Your task to perform on an android device: turn on javascript in the chrome app Image 0: 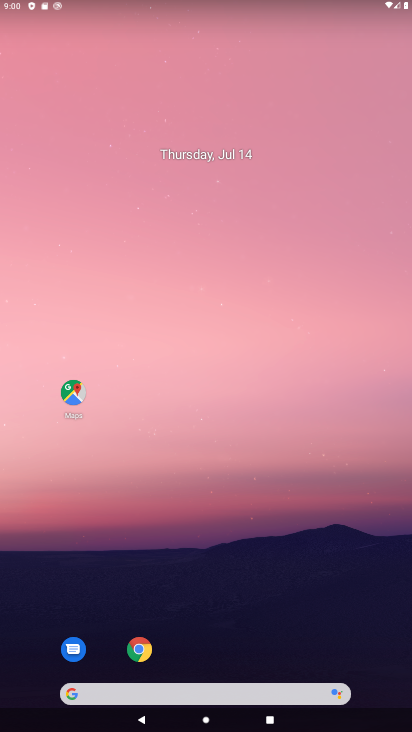
Step 0: drag from (177, 676) to (136, 657)
Your task to perform on an android device: turn on javascript in the chrome app Image 1: 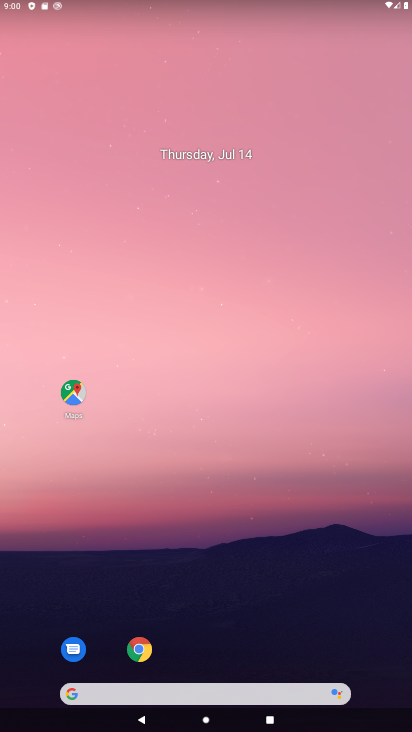
Step 1: click (136, 657)
Your task to perform on an android device: turn on javascript in the chrome app Image 2: 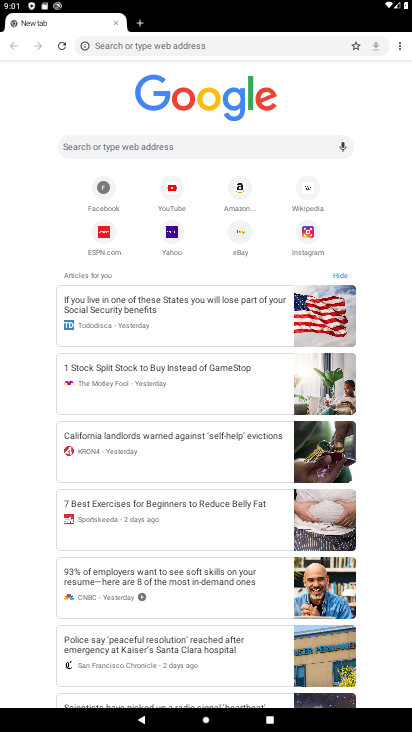
Step 2: click (399, 41)
Your task to perform on an android device: turn on javascript in the chrome app Image 3: 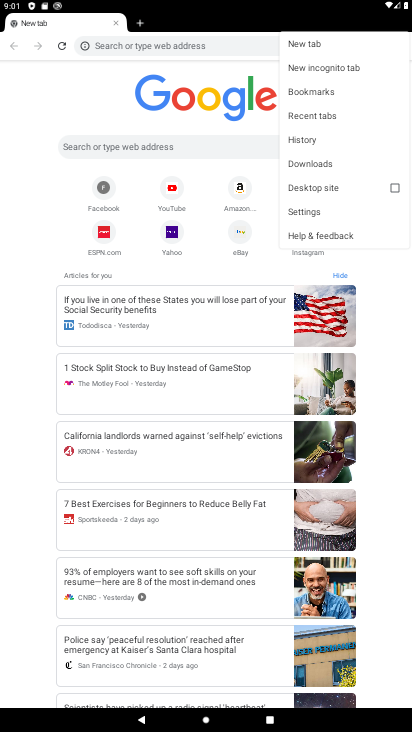
Step 3: click (319, 204)
Your task to perform on an android device: turn on javascript in the chrome app Image 4: 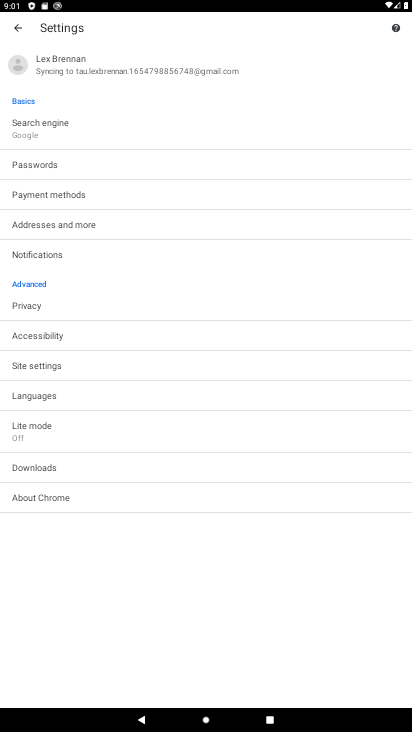
Step 4: click (34, 363)
Your task to perform on an android device: turn on javascript in the chrome app Image 5: 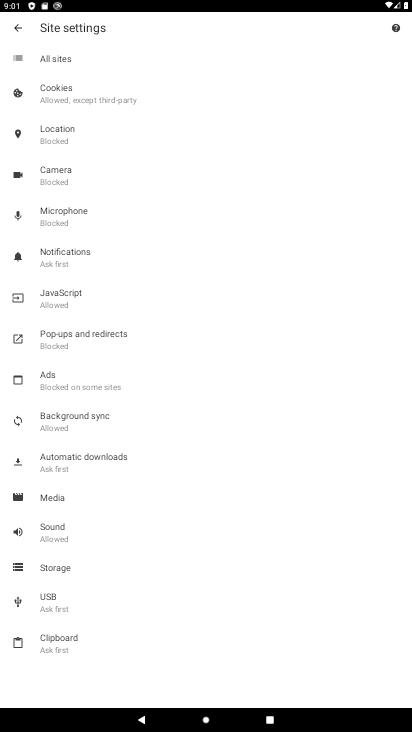
Step 5: click (74, 296)
Your task to perform on an android device: turn on javascript in the chrome app Image 6: 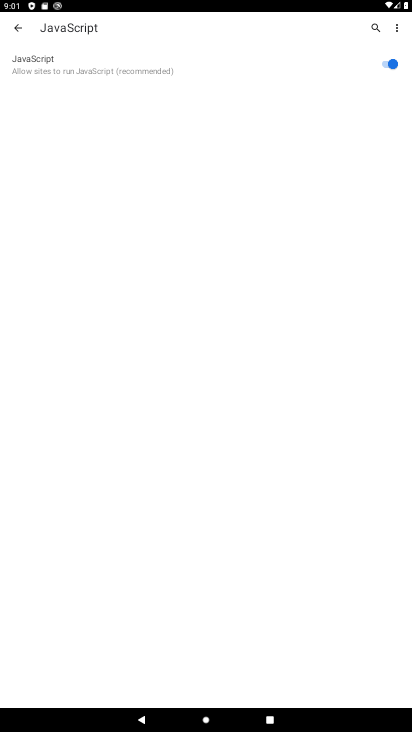
Step 6: task complete